Your task to perform on an android device: Open calendar and show me the first week of next month Image 0: 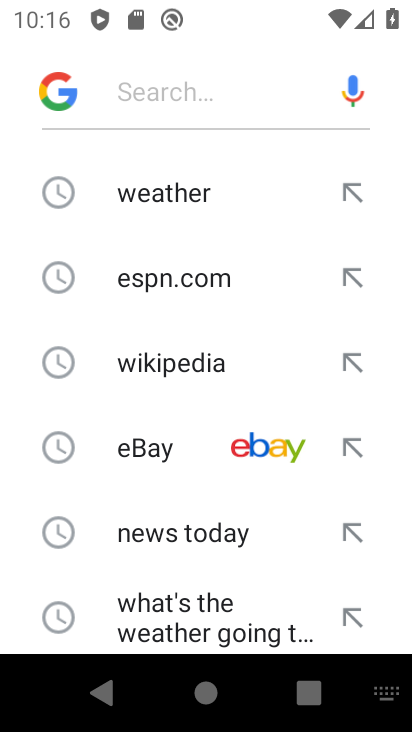
Step 0: press home button
Your task to perform on an android device: Open calendar and show me the first week of next month Image 1: 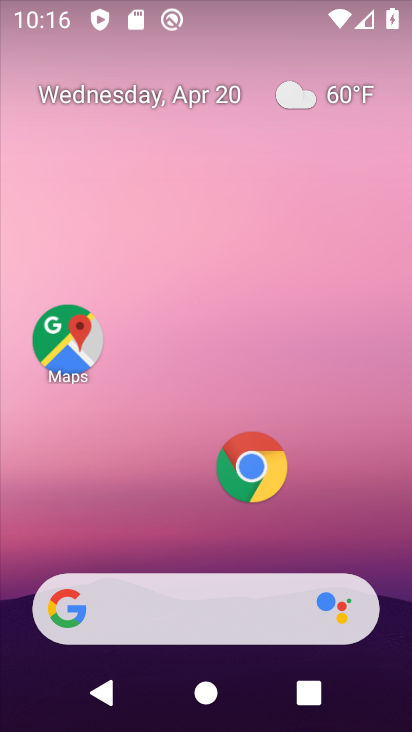
Step 1: drag from (352, 534) to (383, 170)
Your task to perform on an android device: Open calendar and show me the first week of next month Image 2: 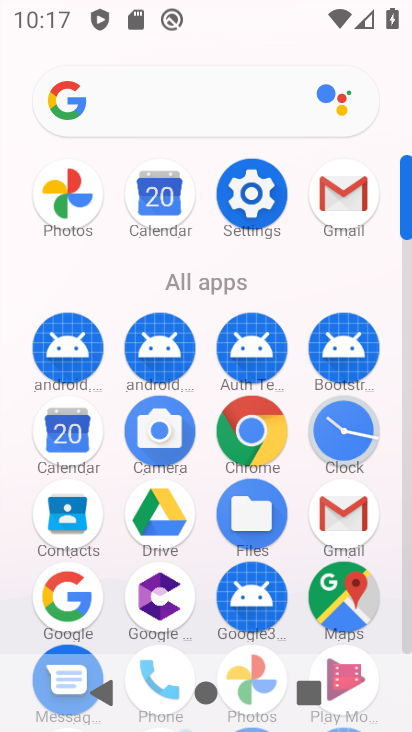
Step 2: click (53, 441)
Your task to perform on an android device: Open calendar and show me the first week of next month Image 3: 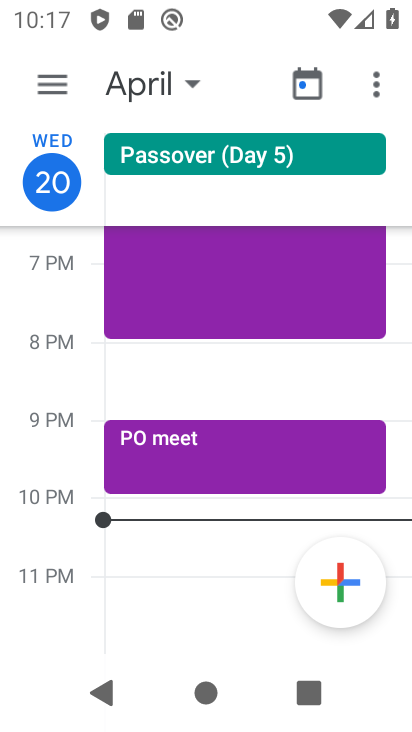
Step 3: click (161, 70)
Your task to perform on an android device: Open calendar and show me the first week of next month Image 4: 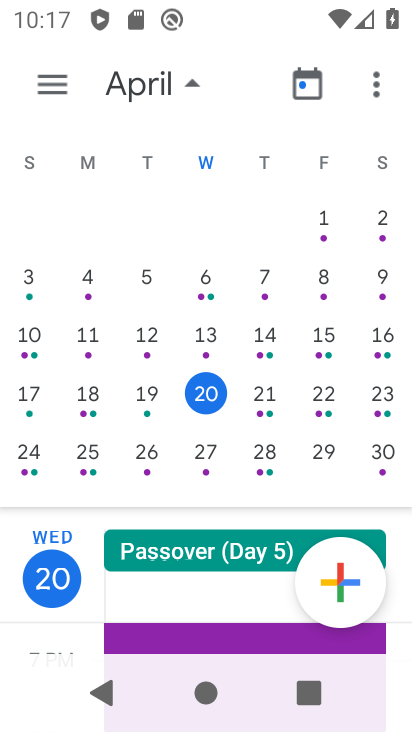
Step 4: drag from (374, 324) to (18, 314)
Your task to perform on an android device: Open calendar and show me the first week of next month Image 5: 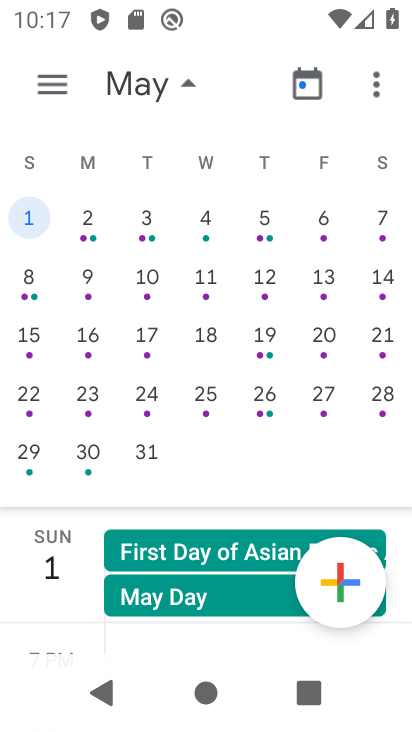
Step 5: click (29, 229)
Your task to perform on an android device: Open calendar and show me the first week of next month Image 6: 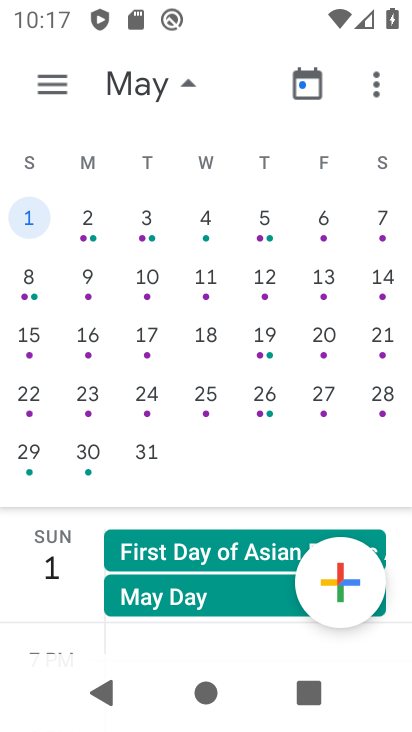
Step 6: task complete